Your task to perform on an android device: Open calendar and show me the fourth week of next month Image 0: 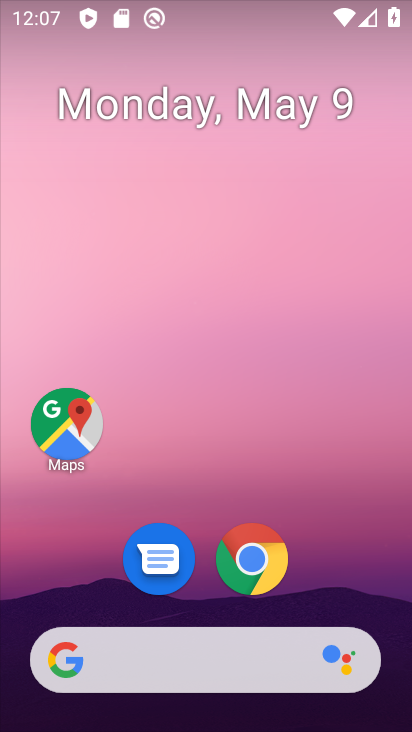
Step 0: drag from (222, 624) to (230, 356)
Your task to perform on an android device: Open calendar and show me the fourth week of next month Image 1: 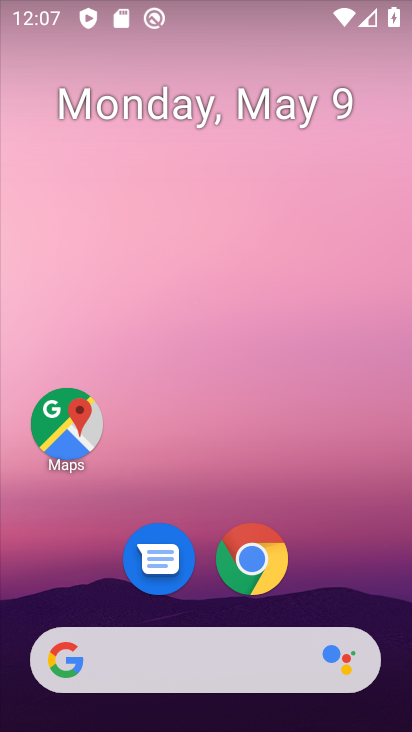
Step 1: drag from (215, 617) to (405, 34)
Your task to perform on an android device: Open calendar and show me the fourth week of next month Image 2: 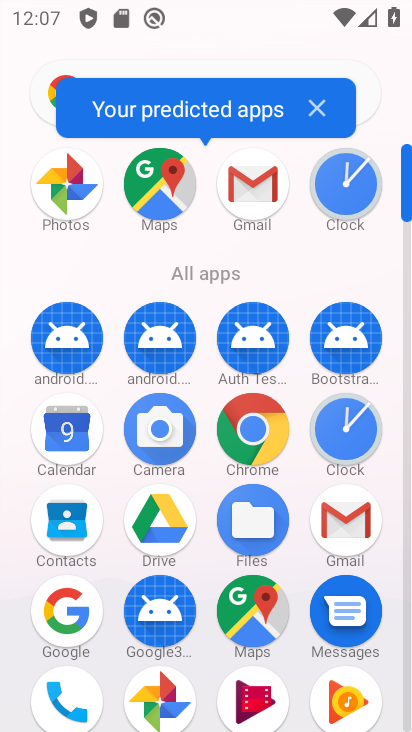
Step 2: click (76, 442)
Your task to perform on an android device: Open calendar and show me the fourth week of next month Image 3: 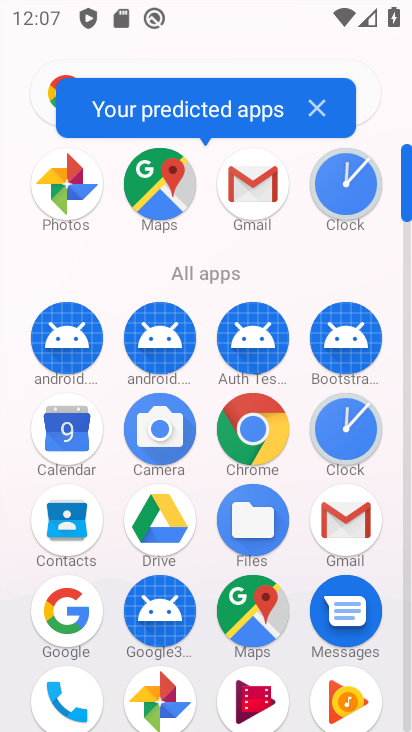
Step 3: click (76, 442)
Your task to perform on an android device: Open calendar and show me the fourth week of next month Image 4: 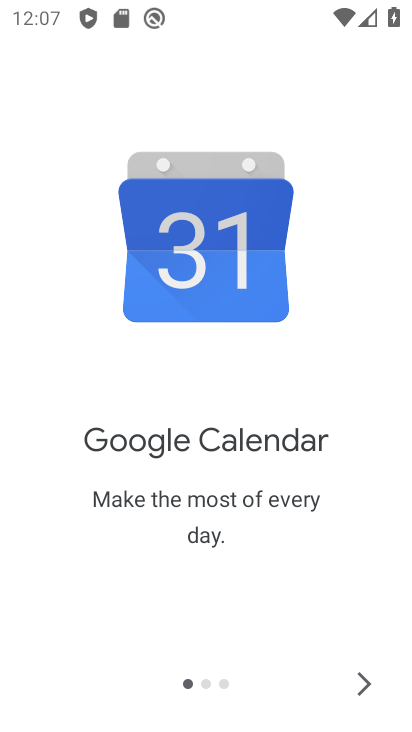
Step 4: click (364, 690)
Your task to perform on an android device: Open calendar and show me the fourth week of next month Image 5: 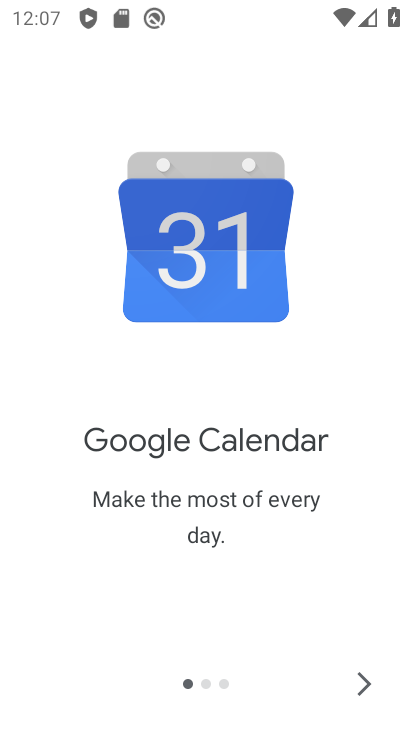
Step 5: click (364, 690)
Your task to perform on an android device: Open calendar and show me the fourth week of next month Image 6: 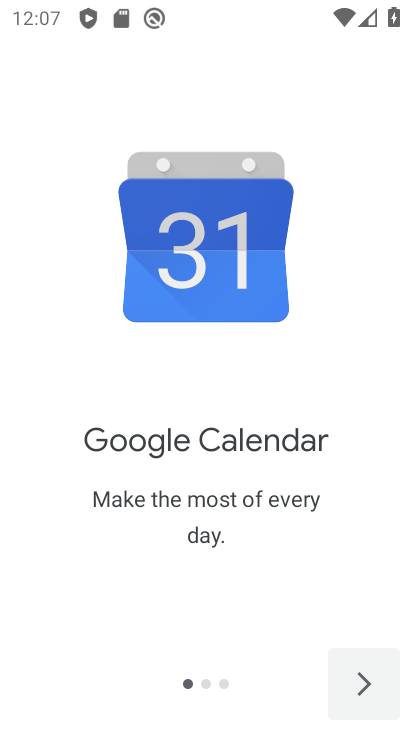
Step 6: click (364, 690)
Your task to perform on an android device: Open calendar and show me the fourth week of next month Image 7: 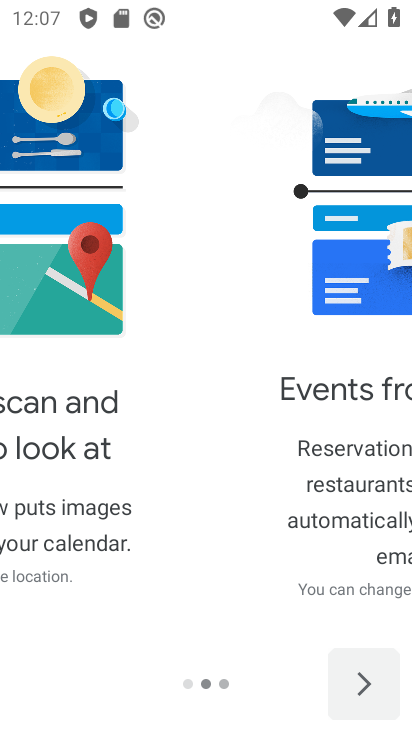
Step 7: click (364, 690)
Your task to perform on an android device: Open calendar and show me the fourth week of next month Image 8: 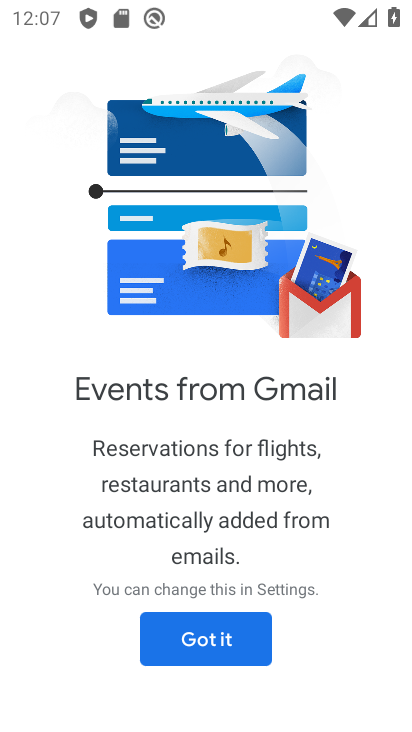
Step 8: click (364, 690)
Your task to perform on an android device: Open calendar and show me the fourth week of next month Image 9: 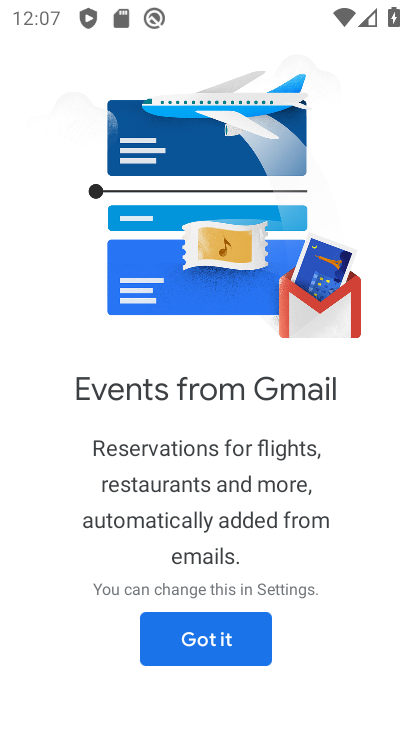
Step 9: click (216, 644)
Your task to perform on an android device: Open calendar and show me the fourth week of next month Image 10: 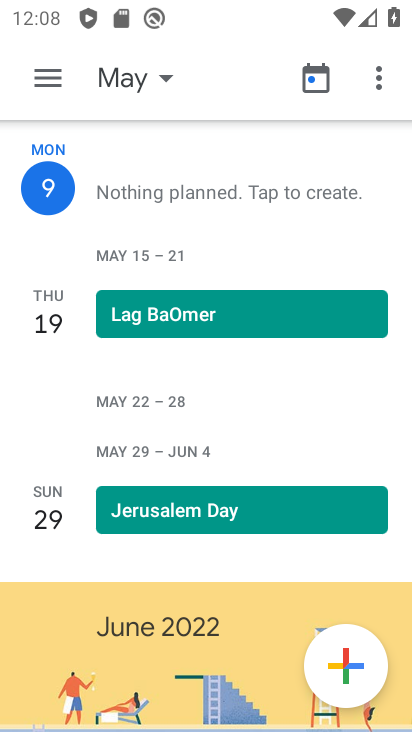
Step 10: click (140, 77)
Your task to perform on an android device: Open calendar and show me the fourth week of next month Image 11: 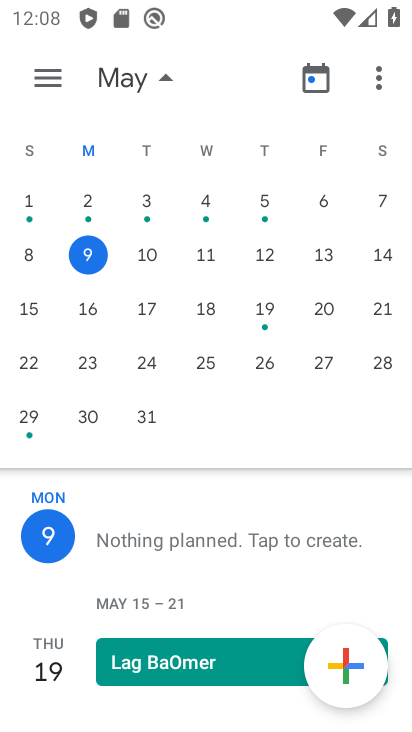
Step 11: drag from (327, 413) to (0, 350)
Your task to perform on an android device: Open calendar and show me the fourth week of next month Image 12: 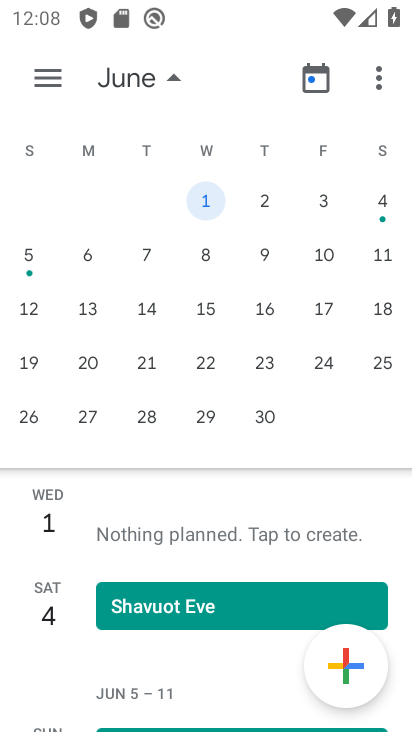
Step 12: click (39, 412)
Your task to perform on an android device: Open calendar and show me the fourth week of next month Image 13: 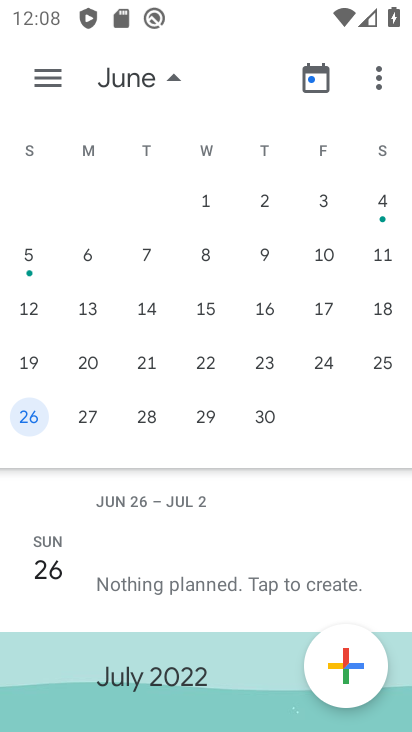
Step 13: click (52, 78)
Your task to perform on an android device: Open calendar and show me the fourth week of next month Image 14: 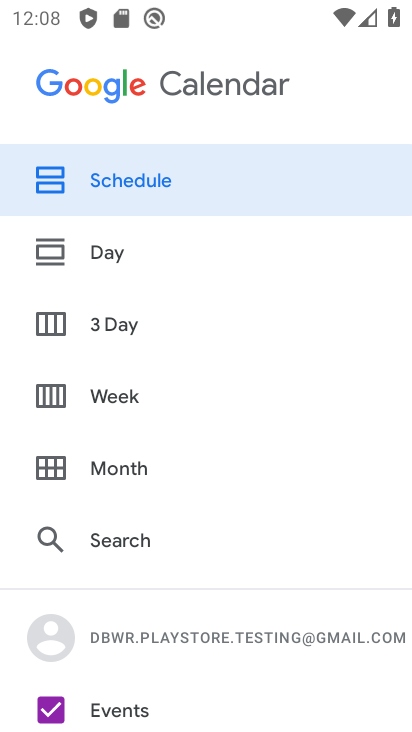
Step 14: click (132, 401)
Your task to perform on an android device: Open calendar and show me the fourth week of next month Image 15: 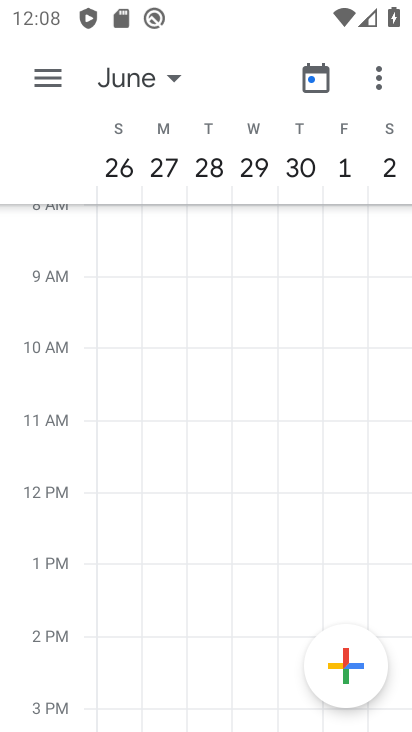
Step 15: task complete